Your task to perform on an android device: Open calendar and show me the first week of next month Image 0: 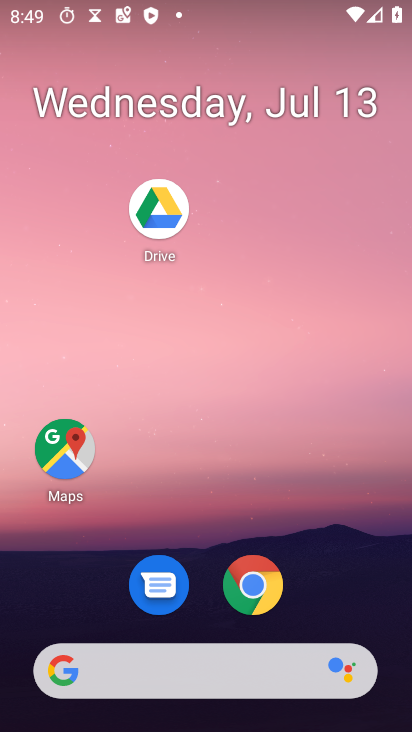
Step 0: drag from (193, 686) to (263, 200)
Your task to perform on an android device: Open calendar and show me the first week of next month Image 1: 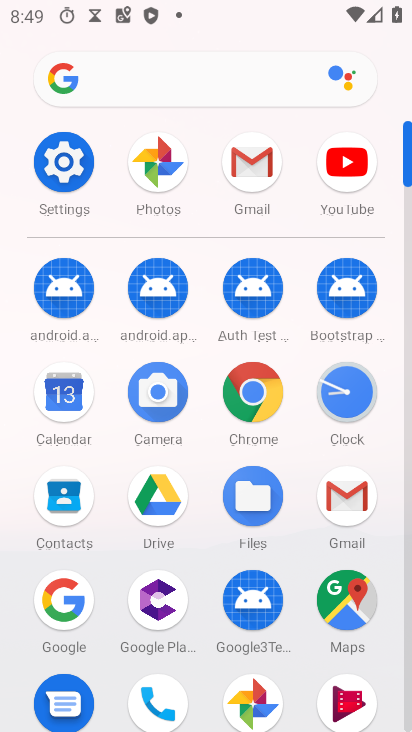
Step 1: click (63, 402)
Your task to perform on an android device: Open calendar and show me the first week of next month Image 2: 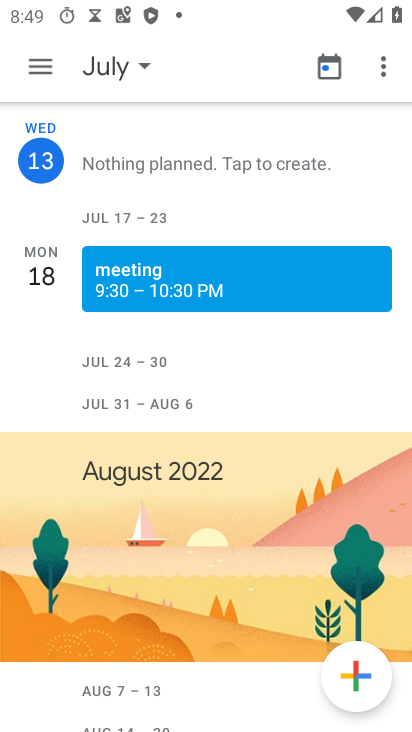
Step 2: click (103, 53)
Your task to perform on an android device: Open calendar and show me the first week of next month Image 3: 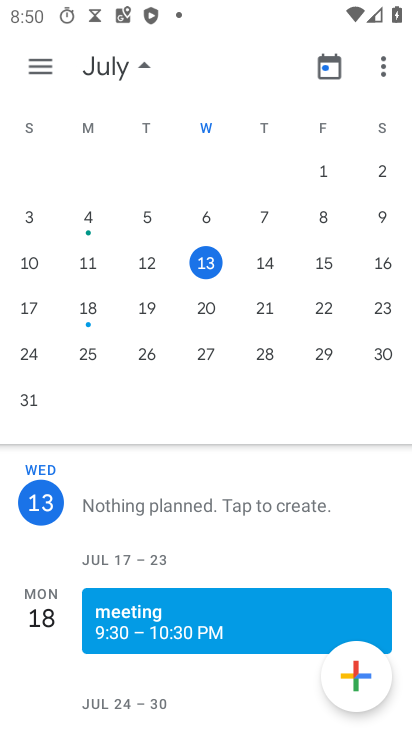
Step 3: drag from (339, 344) to (81, 233)
Your task to perform on an android device: Open calendar and show me the first week of next month Image 4: 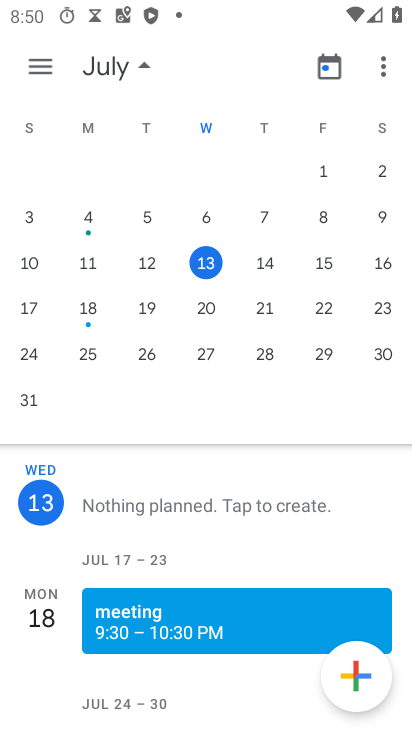
Step 4: drag from (325, 218) to (253, 180)
Your task to perform on an android device: Open calendar and show me the first week of next month Image 5: 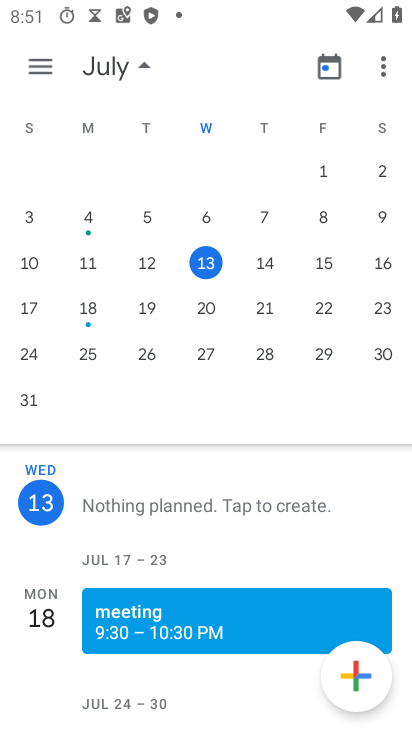
Step 5: drag from (299, 286) to (164, 281)
Your task to perform on an android device: Open calendar and show me the first week of next month Image 6: 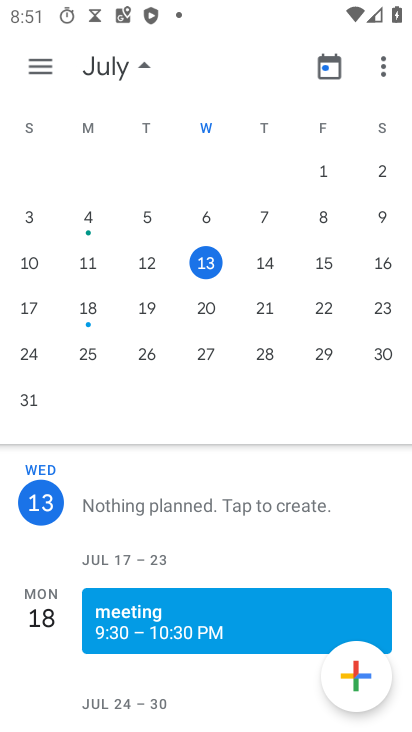
Step 6: drag from (314, 216) to (124, 214)
Your task to perform on an android device: Open calendar and show me the first week of next month Image 7: 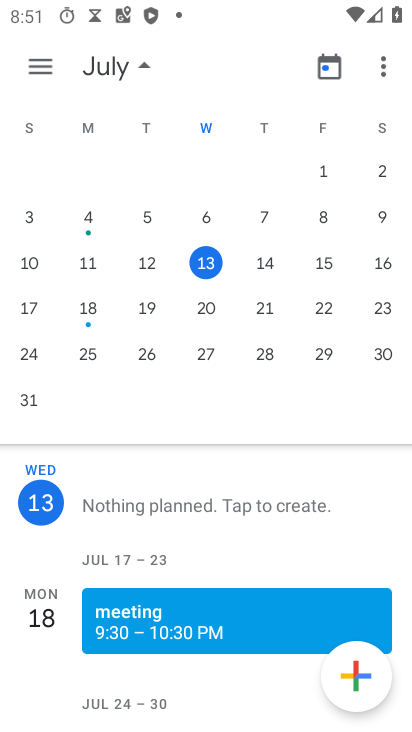
Step 7: drag from (339, 173) to (25, 224)
Your task to perform on an android device: Open calendar and show me the first week of next month Image 8: 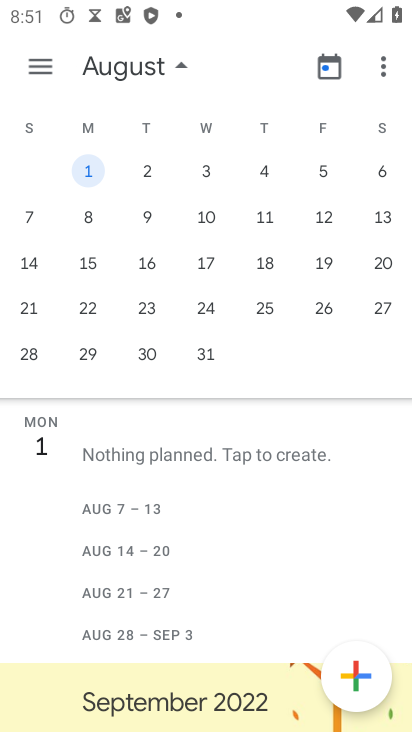
Step 8: click (84, 171)
Your task to perform on an android device: Open calendar and show me the first week of next month Image 9: 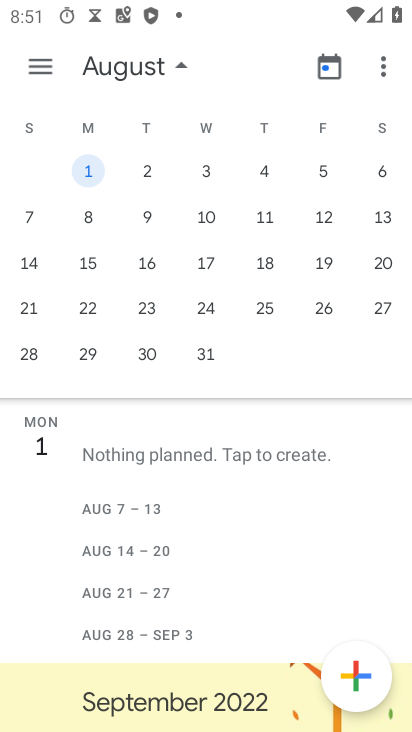
Step 9: click (49, 64)
Your task to perform on an android device: Open calendar and show me the first week of next month Image 10: 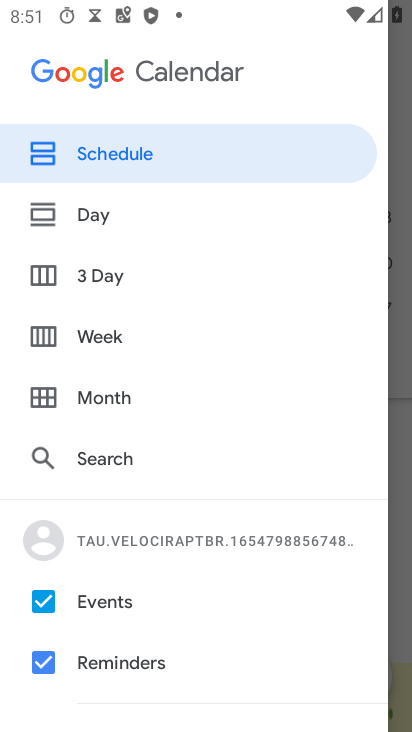
Step 10: click (98, 338)
Your task to perform on an android device: Open calendar and show me the first week of next month Image 11: 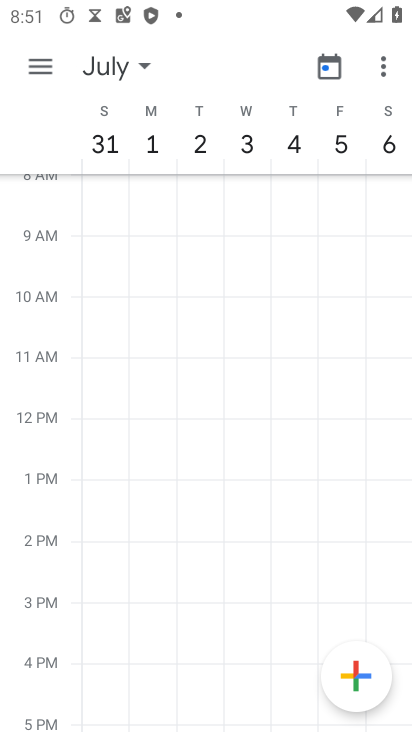
Step 11: task complete